Your task to perform on an android device: Go to ESPN.com Image 0: 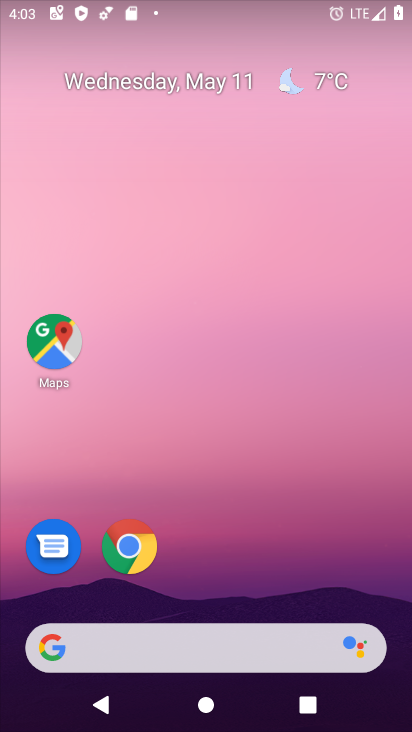
Step 0: drag from (328, 634) to (381, 26)
Your task to perform on an android device: Go to ESPN.com Image 1: 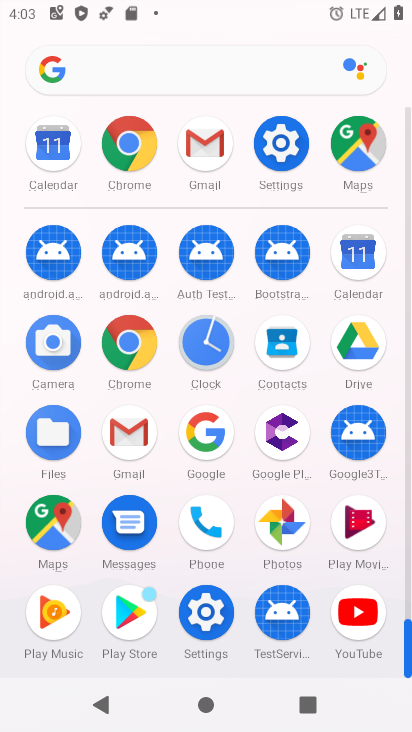
Step 1: click (129, 348)
Your task to perform on an android device: Go to ESPN.com Image 2: 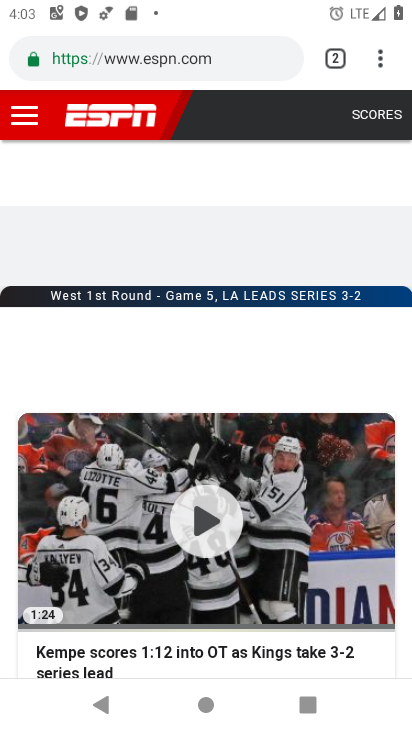
Step 2: task complete